Your task to perform on an android device: check google app version Image 0: 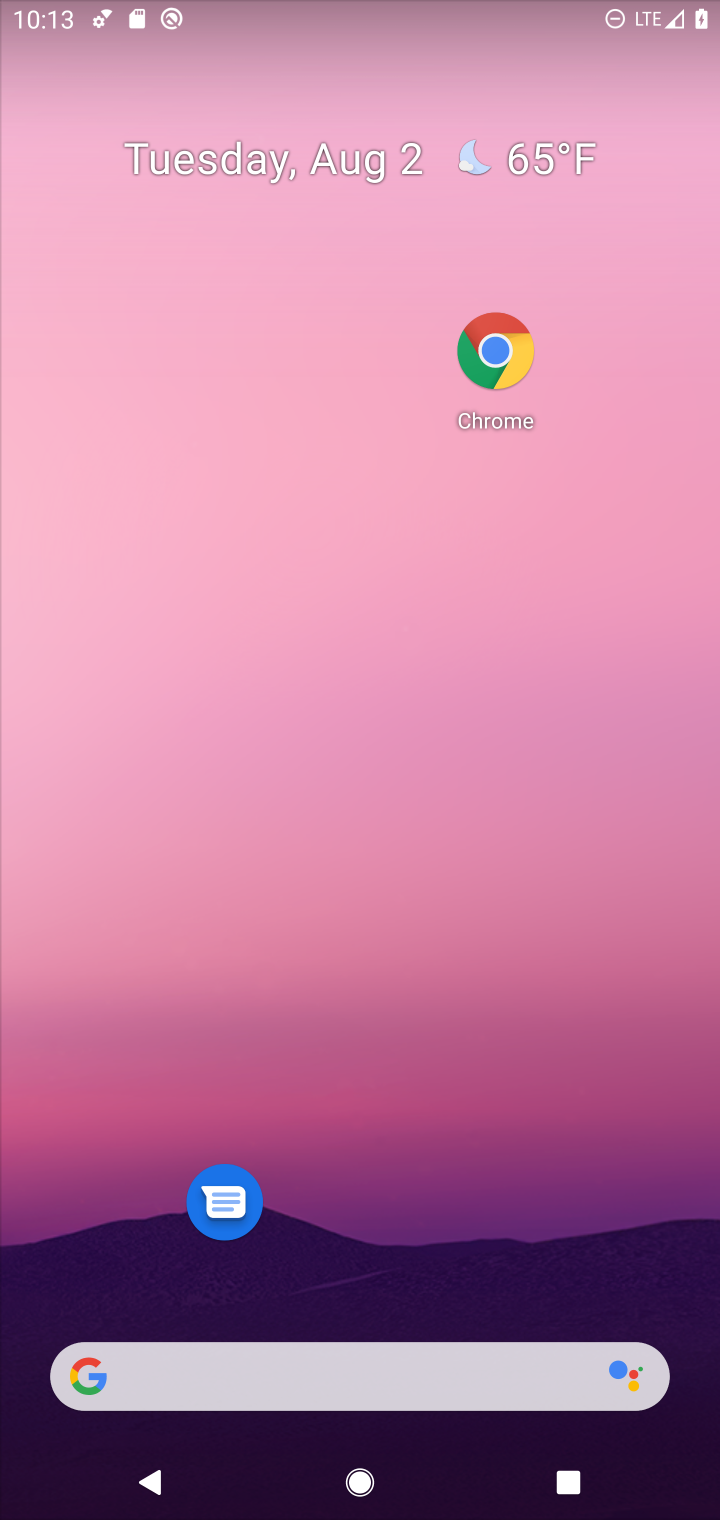
Step 0: drag from (452, 762) to (512, 91)
Your task to perform on an android device: check google app version Image 1: 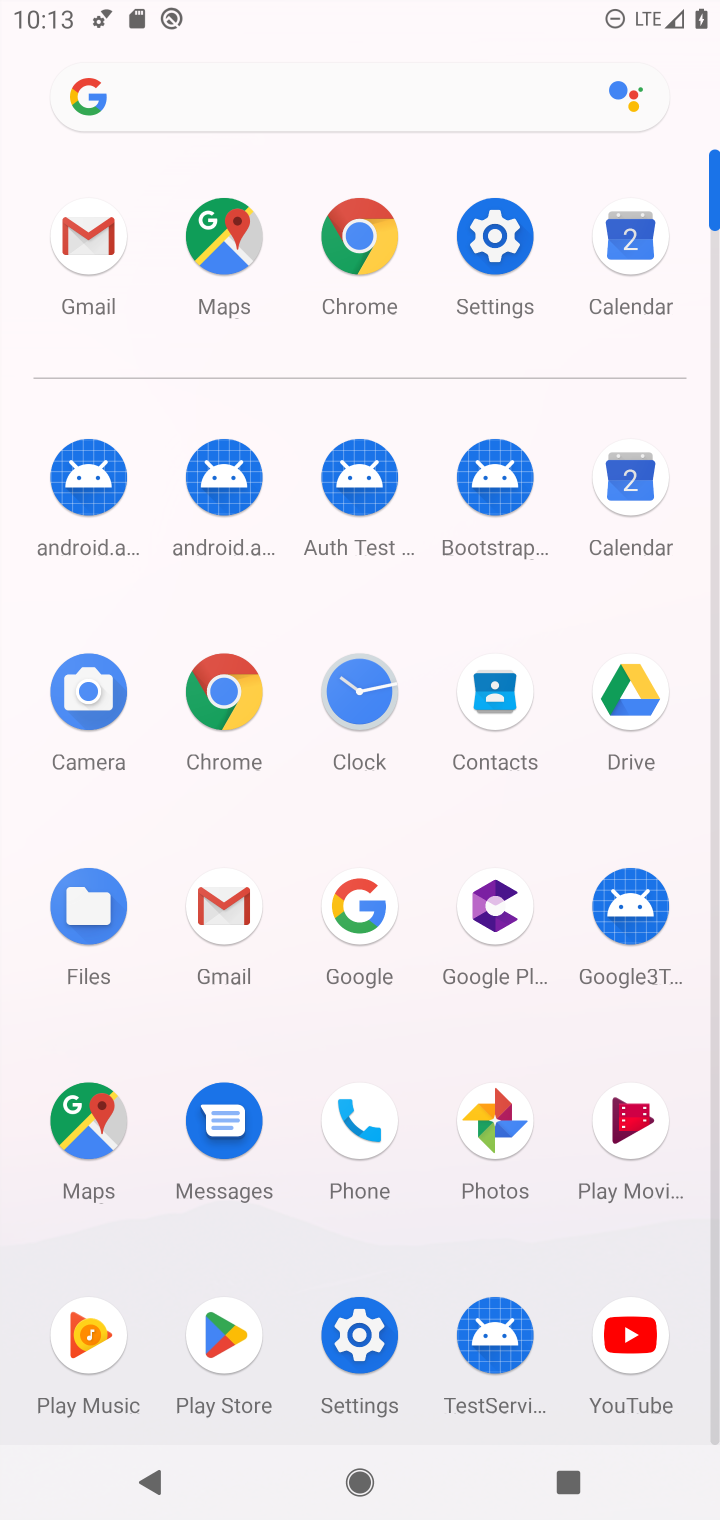
Step 1: click (355, 922)
Your task to perform on an android device: check google app version Image 2: 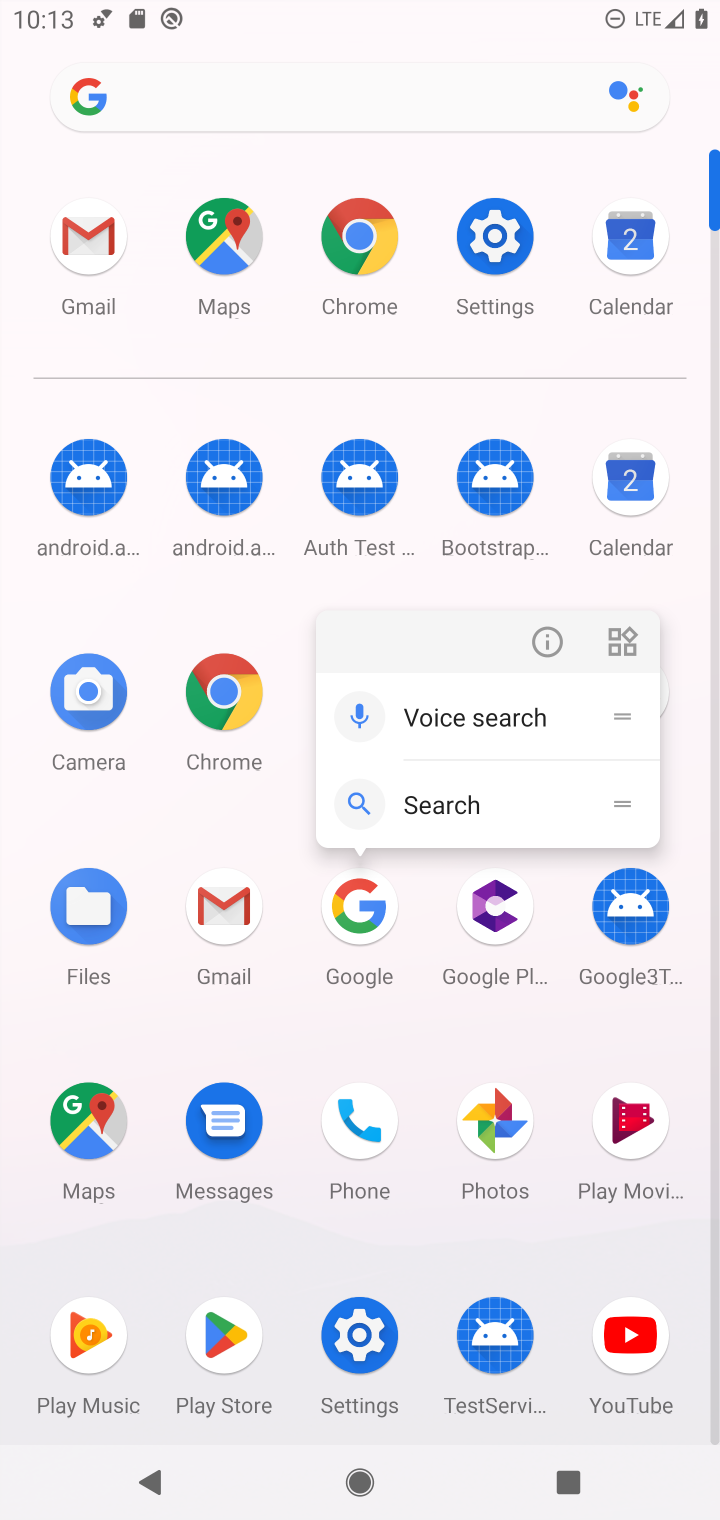
Step 2: click (548, 640)
Your task to perform on an android device: check google app version Image 3: 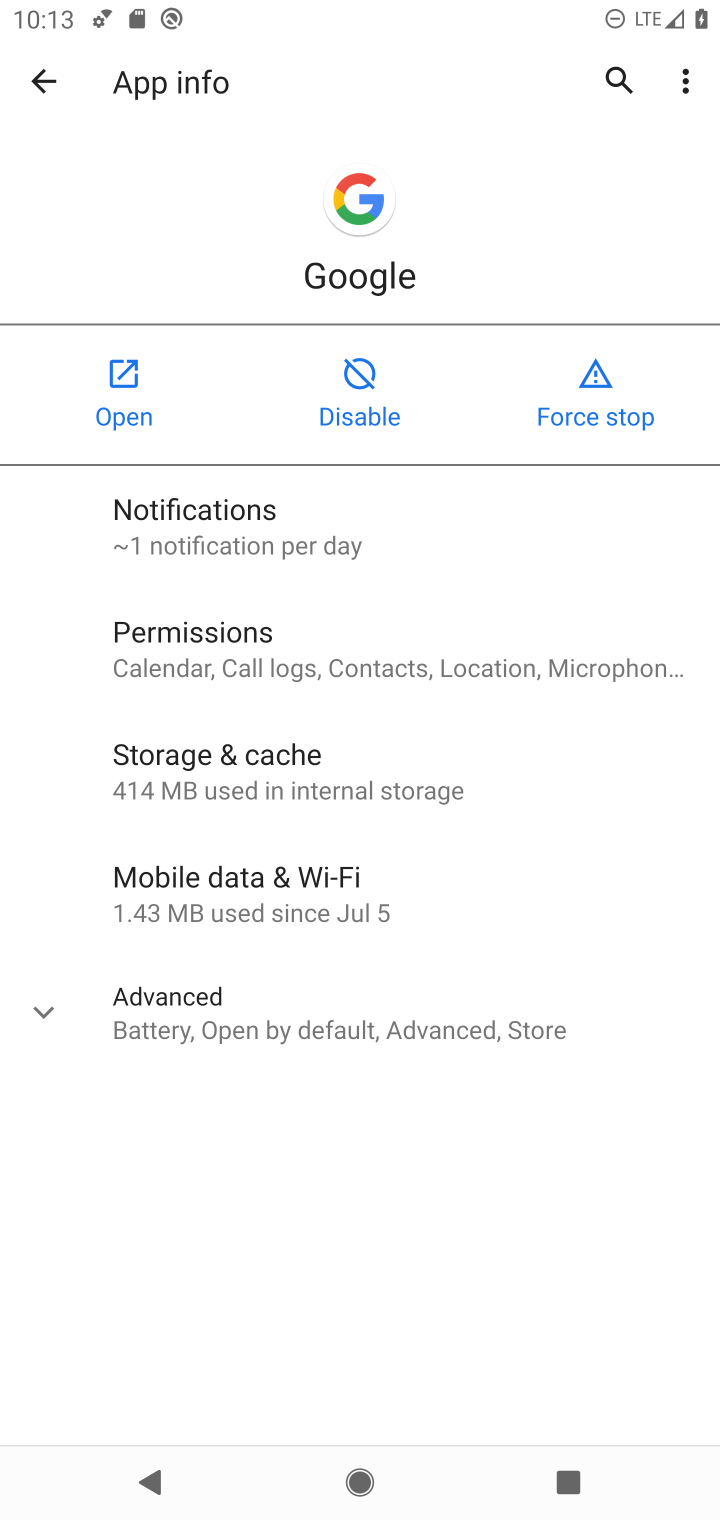
Step 3: click (39, 1019)
Your task to perform on an android device: check google app version Image 4: 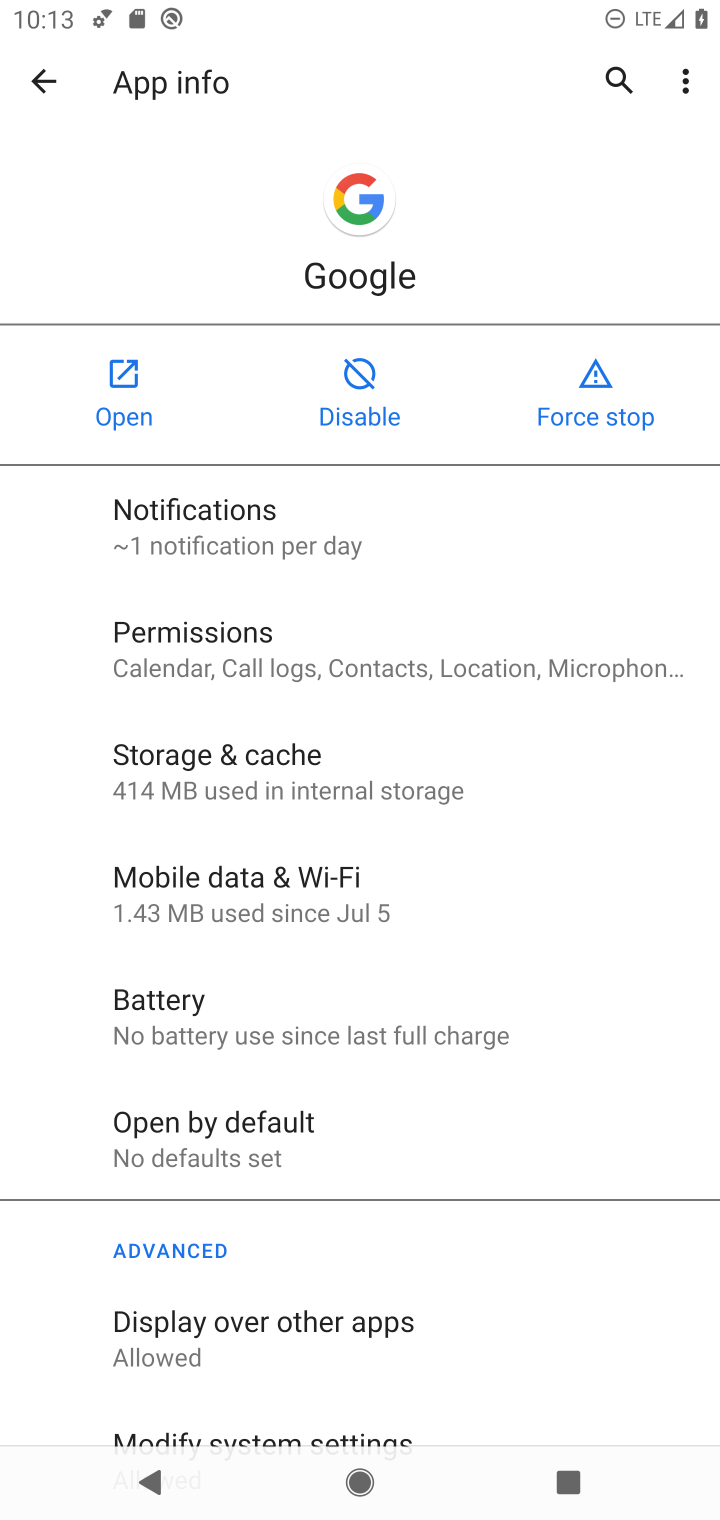
Step 4: task complete